Your task to perform on an android device: turn off javascript in the chrome app Image 0: 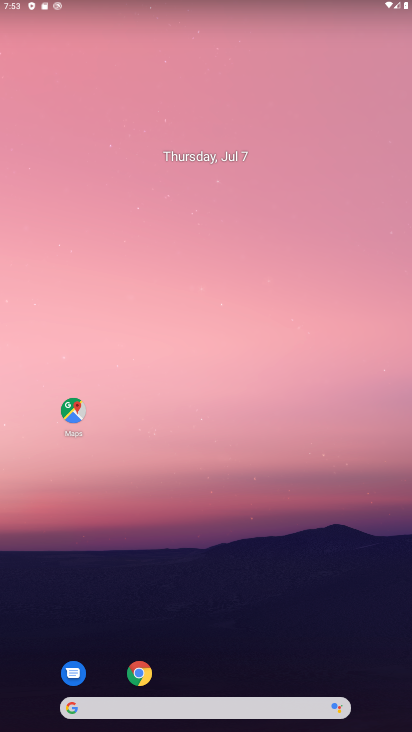
Step 0: click (51, 15)
Your task to perform on an android device: turn off javascript in the chrome app Image 1: 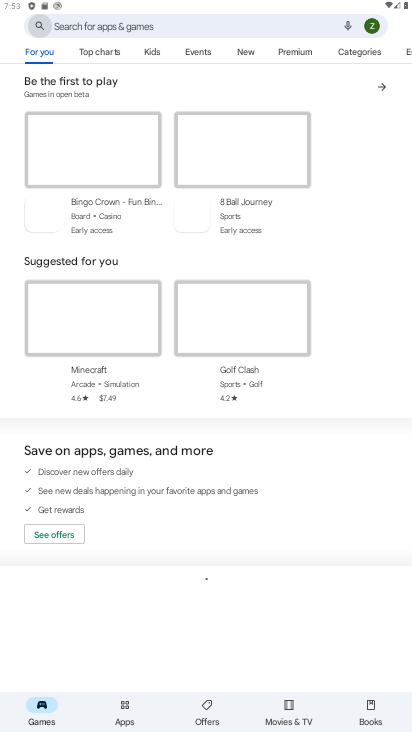
Step 1: press home button
Your task to perform on an android device: turn off javascript in the chrome app Image 2: 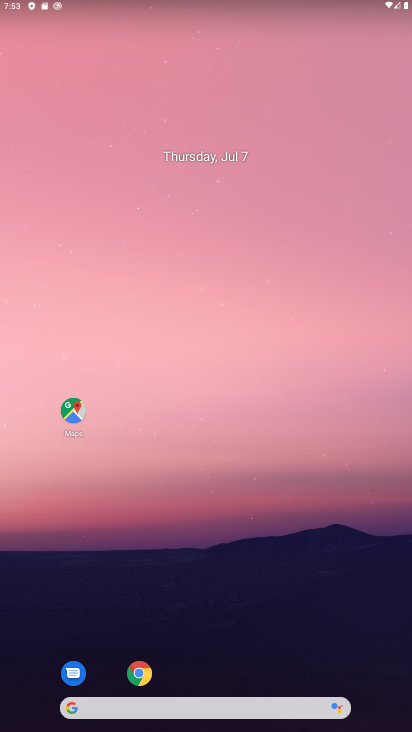
Step 2: click (132, 675)
Your task to perform on an android device: turn off javascript in the chrome app Image 3: 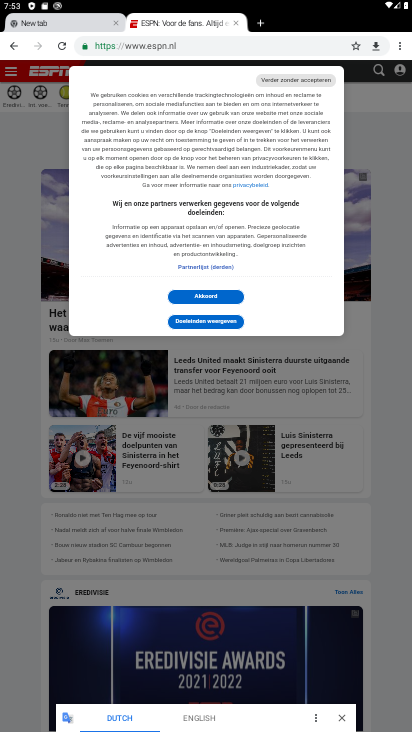
Step 3: click (396, 170)
Your task to perform on an android device: turn off javascript in the chrome app Image 4: 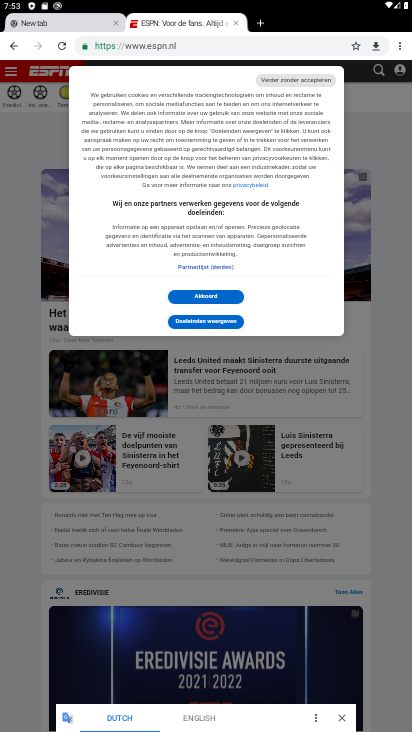
Step 4: click (205, 288)
Your task to perform on an android device: turn off javascript in the chrome app Image 5: 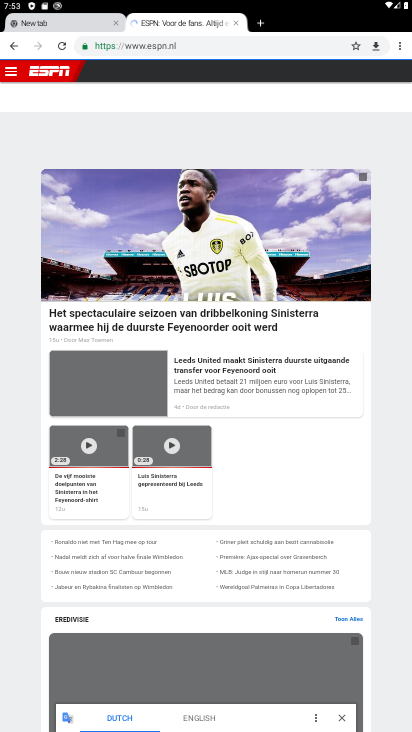
Step 5: drag from (401, 45) to (298, 274)
Your task to perform on an android device: turn off javascript in the chrome app Image 6: 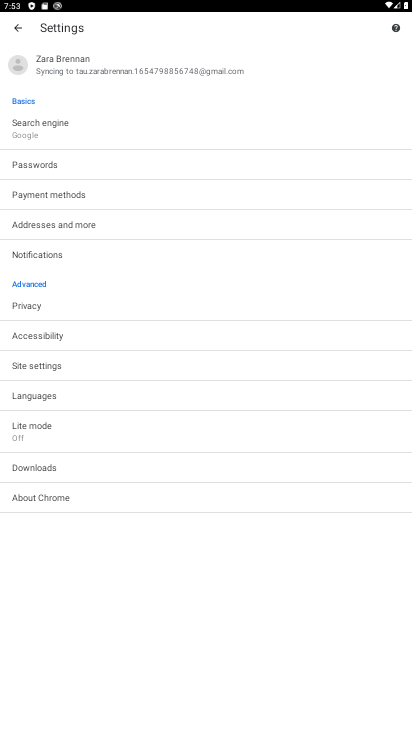
Step 6: click (33, 368)
Your task to perform on an android device: turn off javascript in the chrome app Image 7: 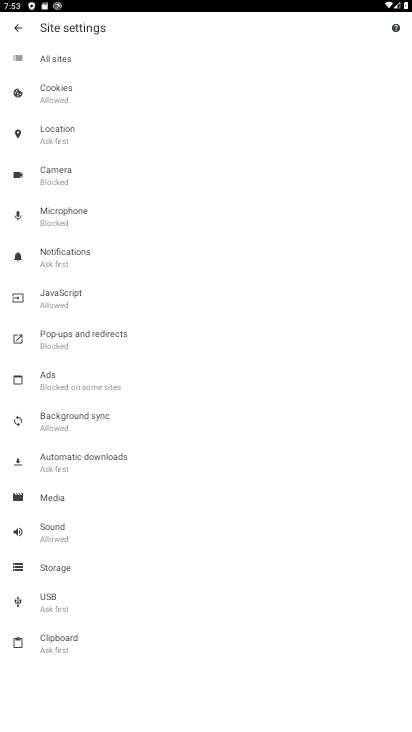
Step 7: click (62, 308)
Your task to perform on an android device: turn off javascript in the chrome app Image 8: 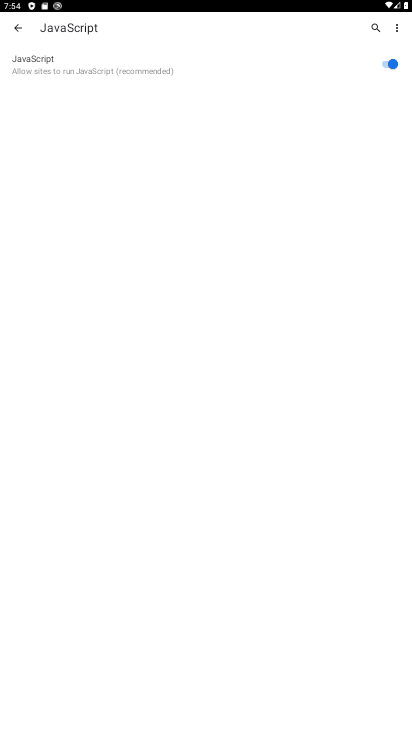
Step 8: click (383, 80)
Your task to perform on an android device: turn off javascript in the chrome app Image 9: 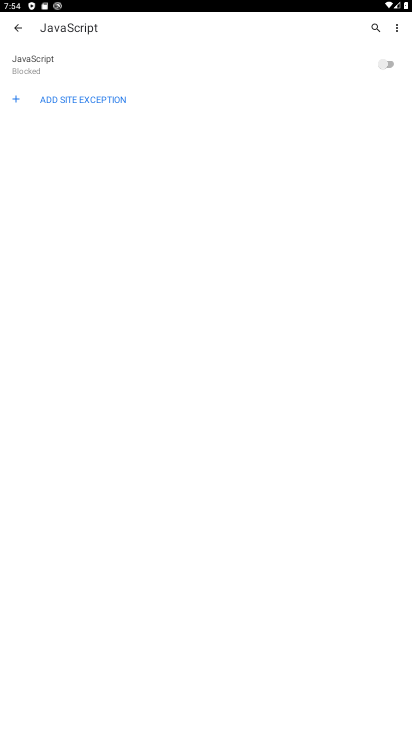
Step 9: task complete